Your task to perform on an android device: open a bookmark in the chrome app Image 0: 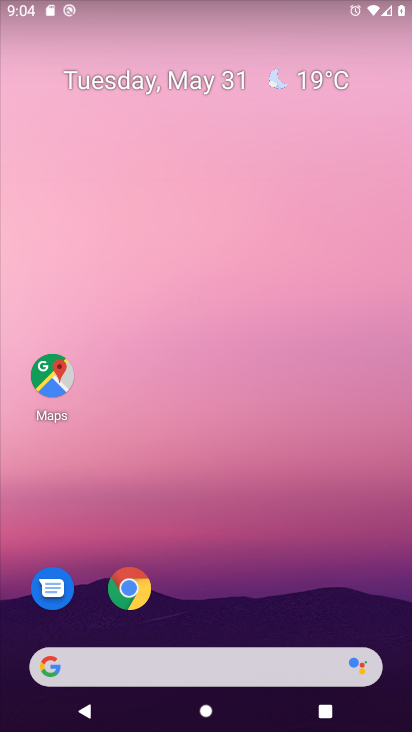
Step 0: click (144, 596)
Your task to perform on an android device: open a bookmark in the chrome app Image 1: 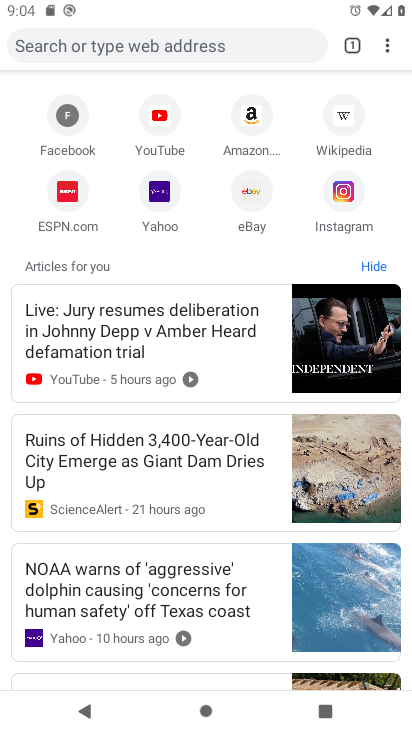
Step 1: task complete